Your task to perform on an android device: turn off location Image 0: 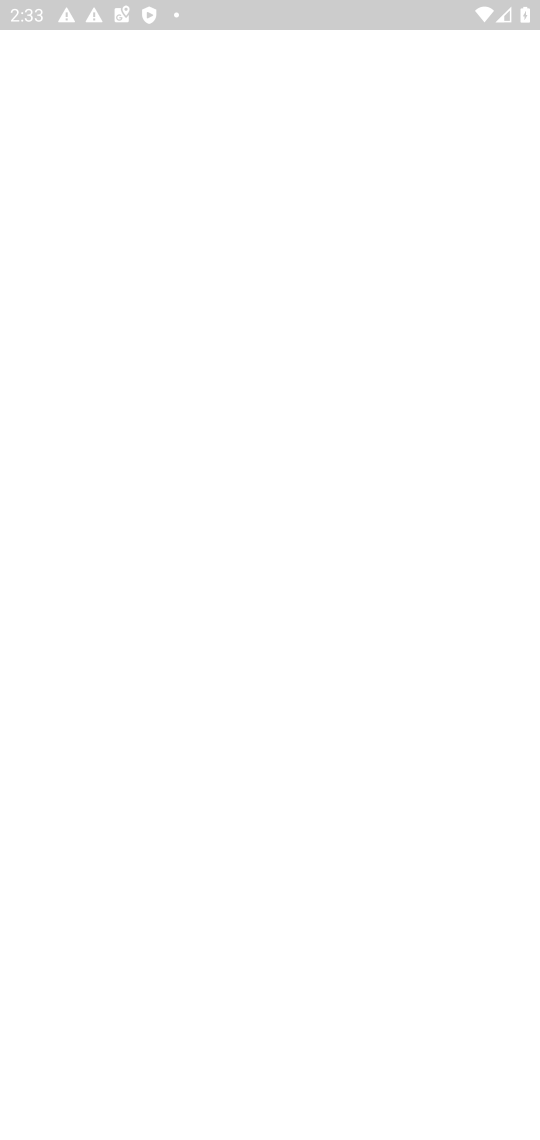
Step 0: drag from (471, 948) to (400, 792)
Your task to perform on an android device: turn off location Image 1: 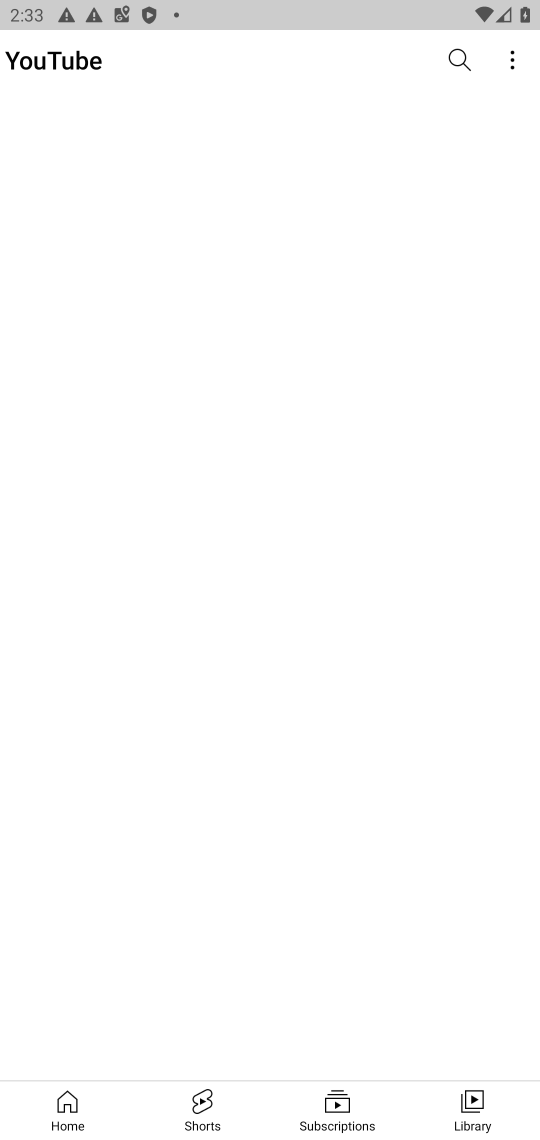
Step 1: press home button
Your task to perform on an android device: turn off location Image 2: 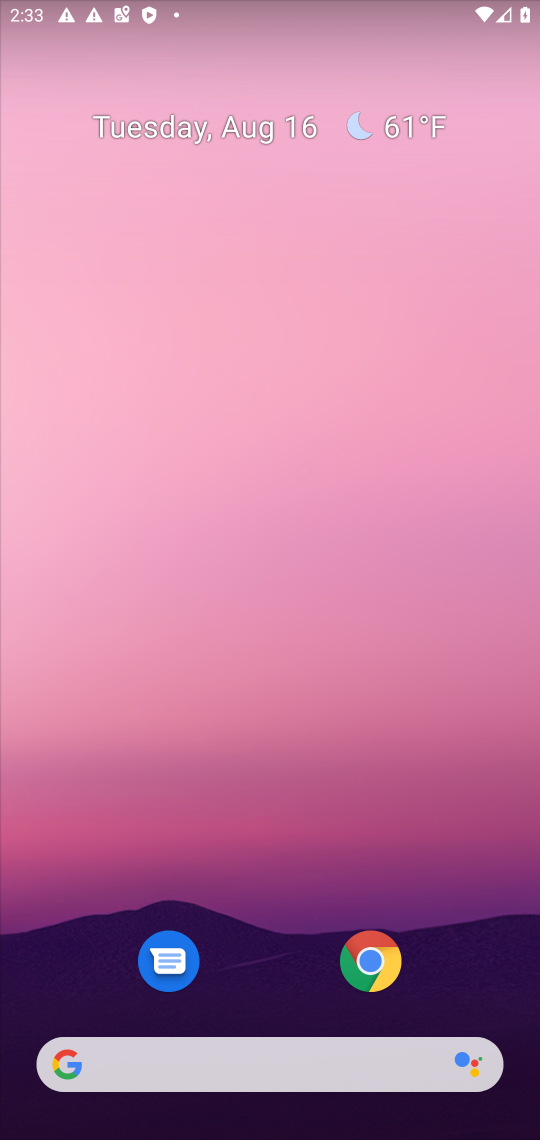
Step 2: drag from (454, 903) to (227, 74)
Your task to perform on an android device: turn off location Image 3: 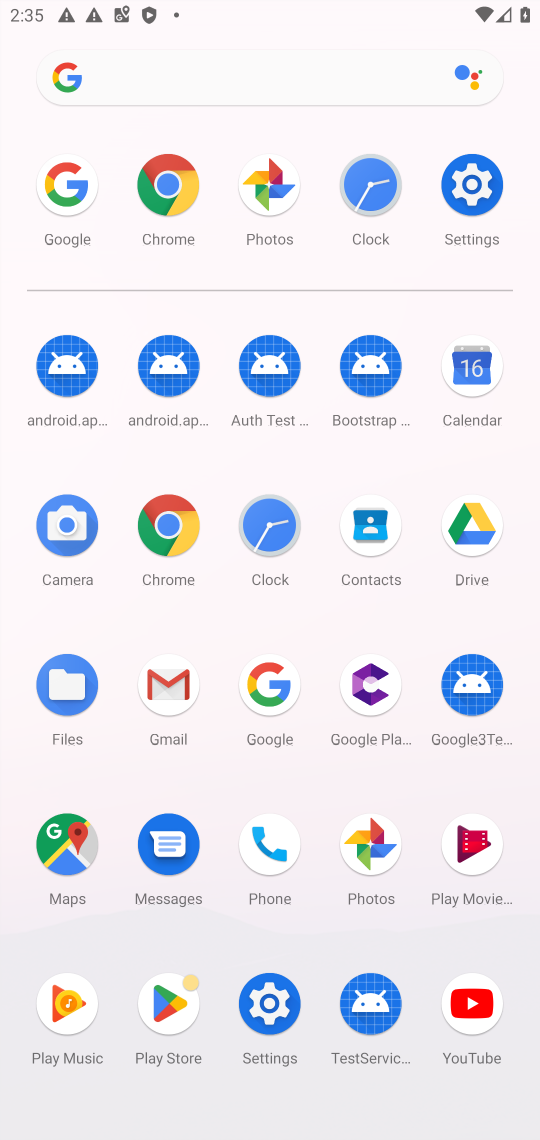
Step 3: click (283, 989)
Your task to perform on an android device: turn off location Image 4: 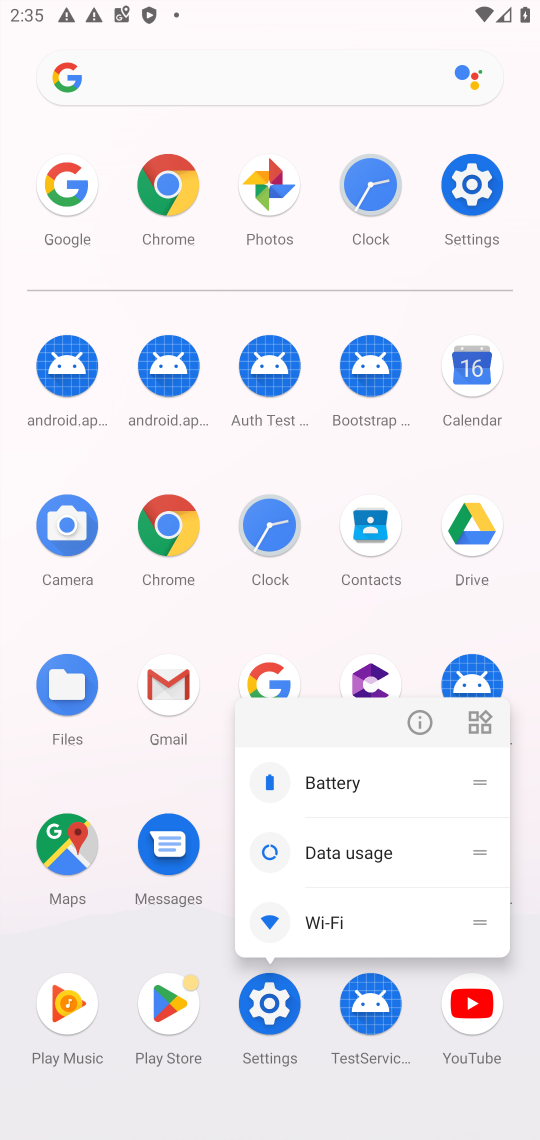
Step 4: click (283, 989)
Your task to perform on an android device: turn off location Image 5: 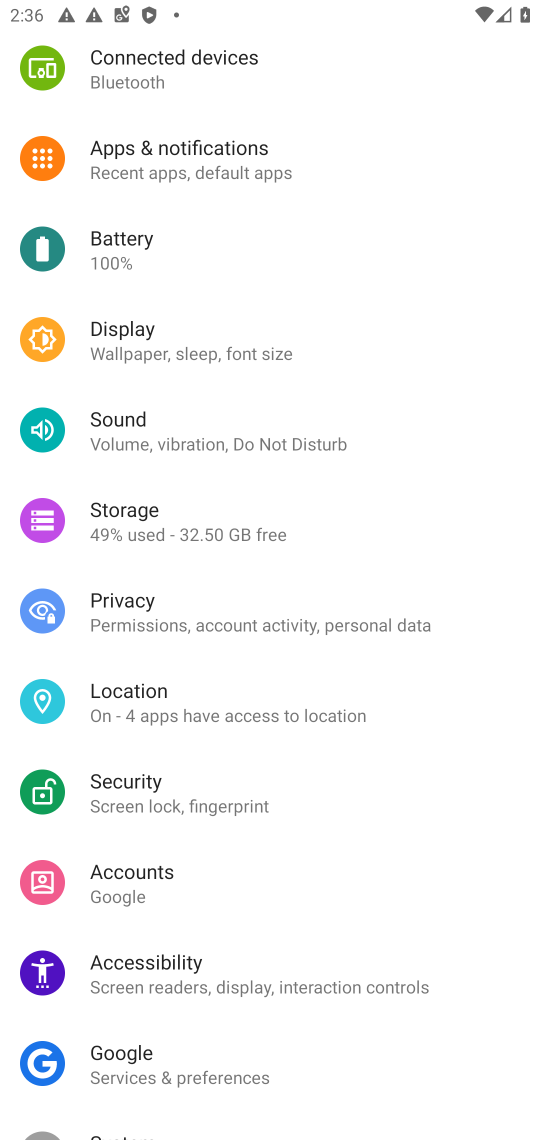
Step 5: click (147, 708)
Your task to perform on an android device: turn off location Image 6: 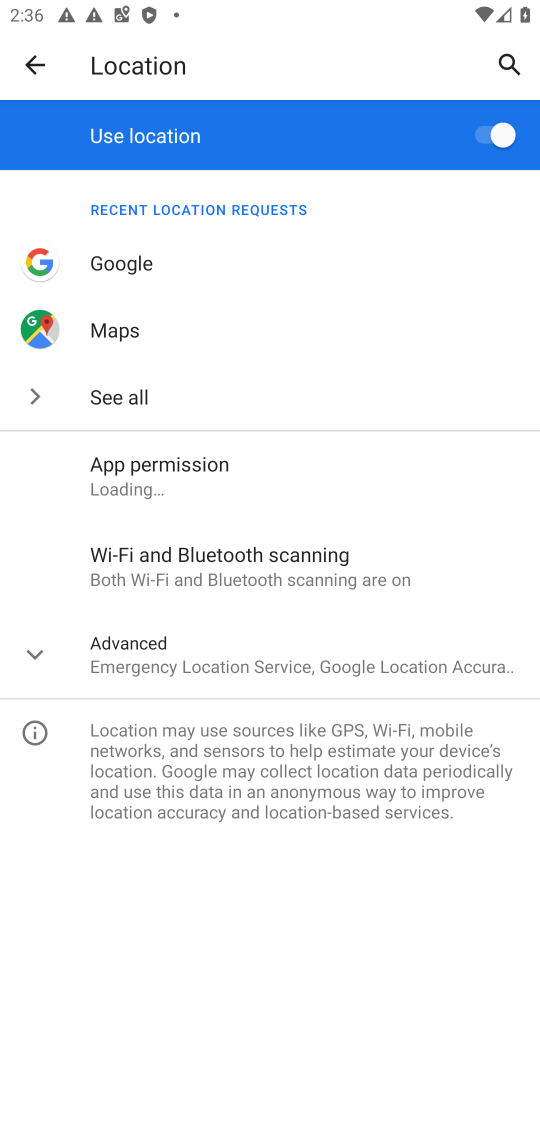
Step 6: click (471, 130)
Your task to perform on an android device: turn off location Image 7: 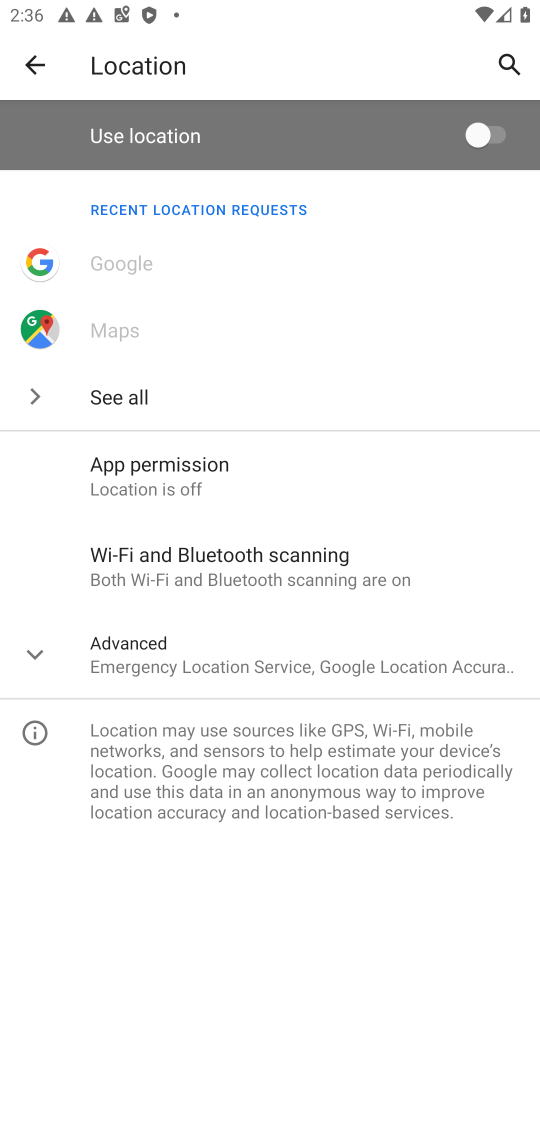
Step 7: task complete